Your task to perform on an android device: Go to battery settings Image 0: 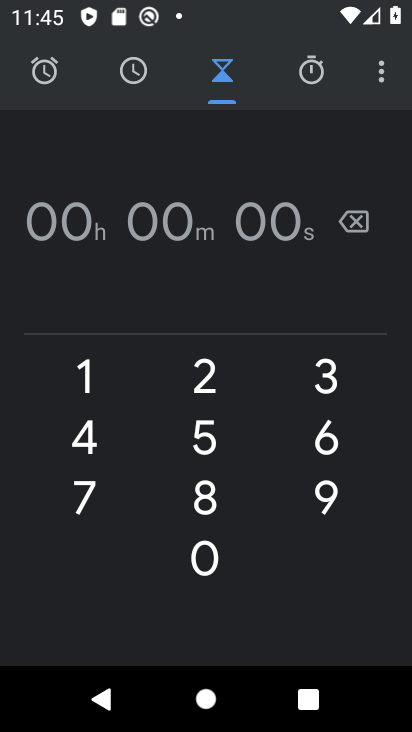
Step 0: press home button
Your task to perform on an android device: Go to battery settings Image 1: 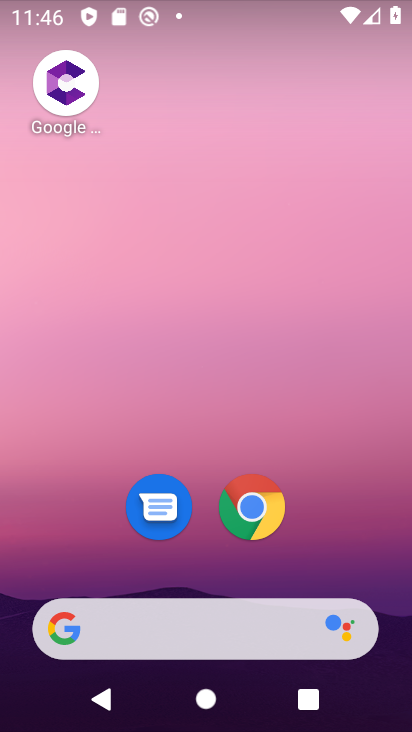
Step 1: drag from (345, 562) to (342, 88)
Your task to perform on an android device: Go to battery settings Image 2: 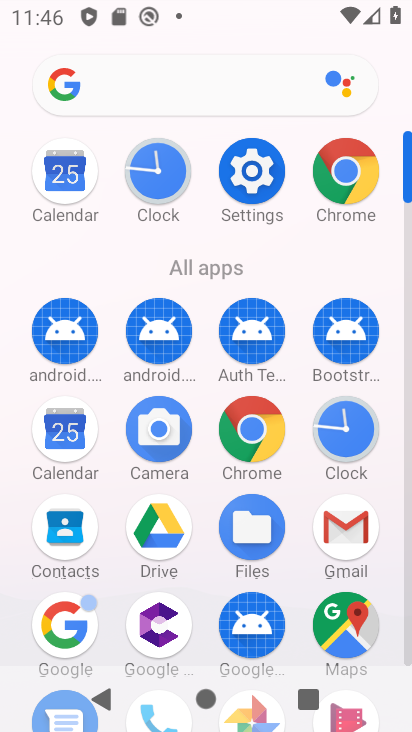
Step 2: click (265, 151)
Your task to perform on an android device: Go to battery settings Image 3: 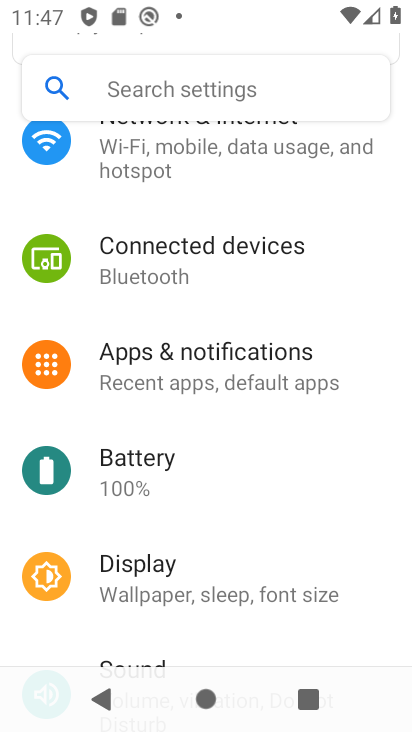
Step 3: click (127, 470)
Your task to perform on an android device: Go to battery settings Image 4: 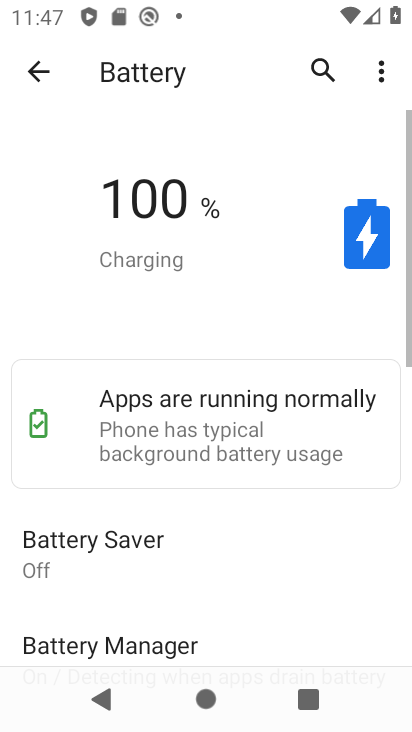
Step 4: task complete